Your task to perform on an android device: Open calendar and show me the second week of next month Image 0: 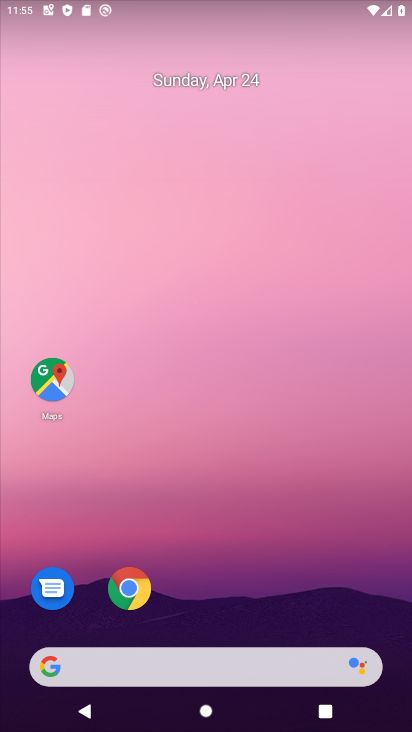
Step 0: drag from (190, 610) to (292, 75)
Your task to perform on an android device: Open calendar and show me the second week of next month Image 1: 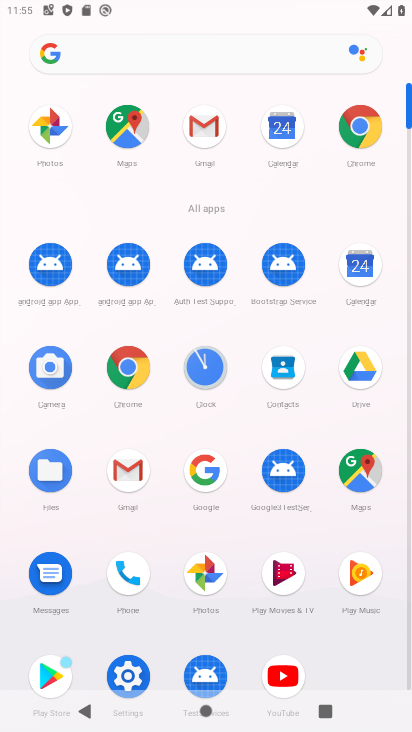
Step 1: click (356, 288)
Your task to perform on an android device: Open calendar and show me the second week of next month Image 2: 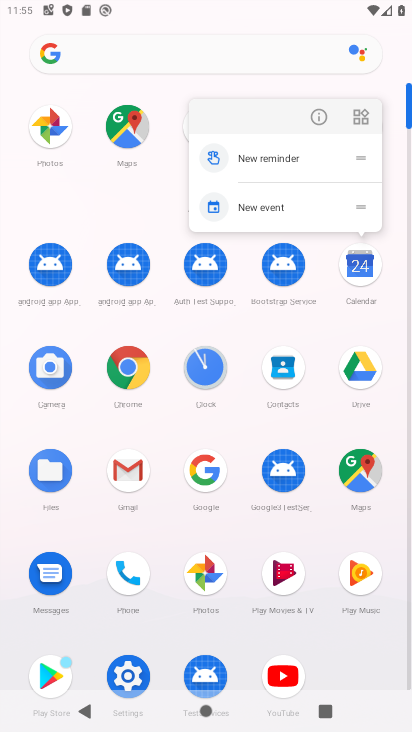
Step 2: click (363, 276)
Your task to perform on an android device: Open calendar and show me the second week of next month Image 3: 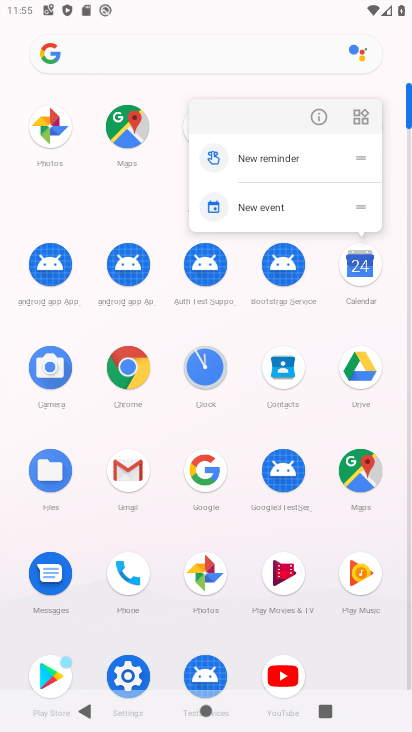
Step 3: click (357, 268)
Your task to perform on an android device: Open calendar and show me the second week of next month Image 4: 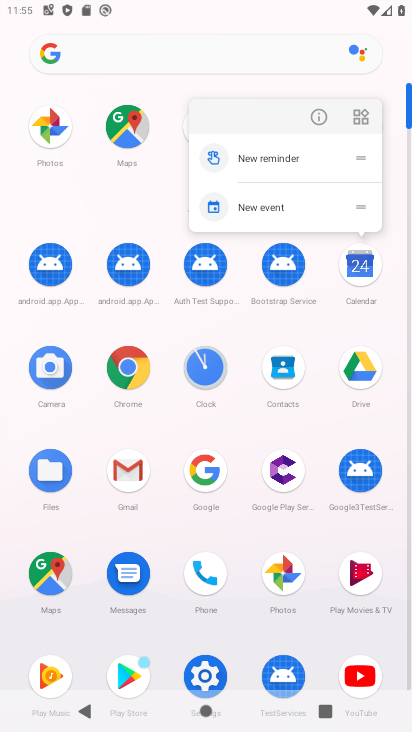
Step 4: click (368, 267)
Your task to perform on an android device: Open calendar and show me the second week of next month Image 5: 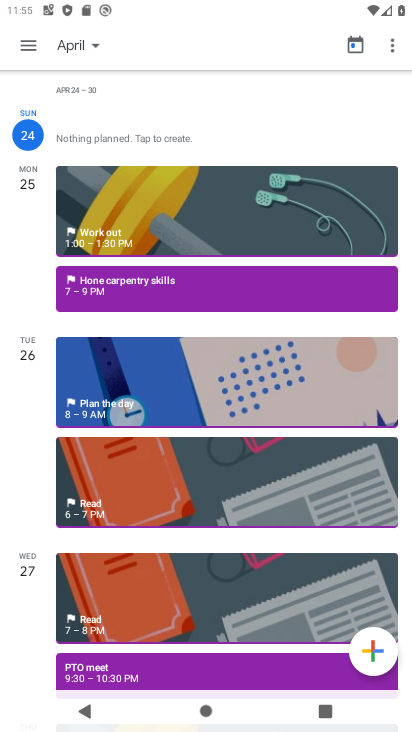
Step 5: click (90, 42)
Your task to perform on an android device: Open calendar and show me the second week of next month Image 6: 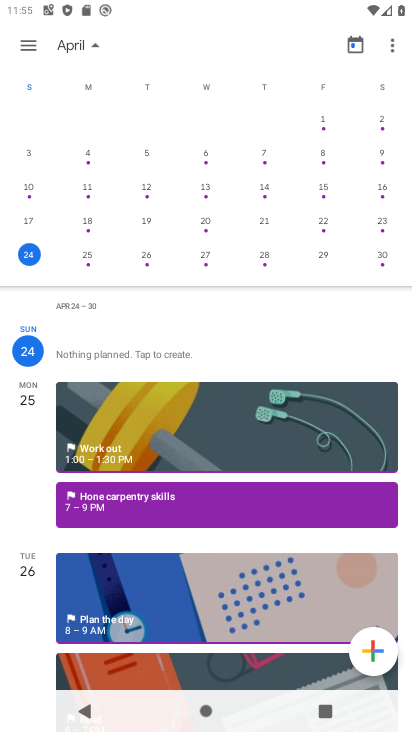
Step 6: drag from (374, 203) to (0, 175)
Your task to perform on an android device: Open calendar and show me the second week of next month Image 7: 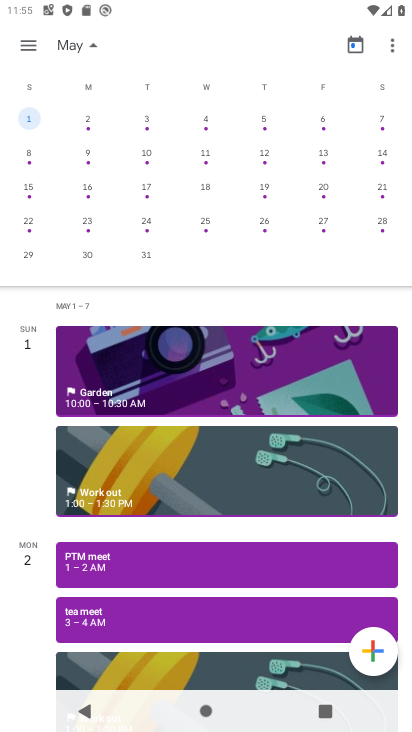
Step 7: click (33, 152)
Your task to perform on an android device: Open calendar and show me the second week of next month Image 8: 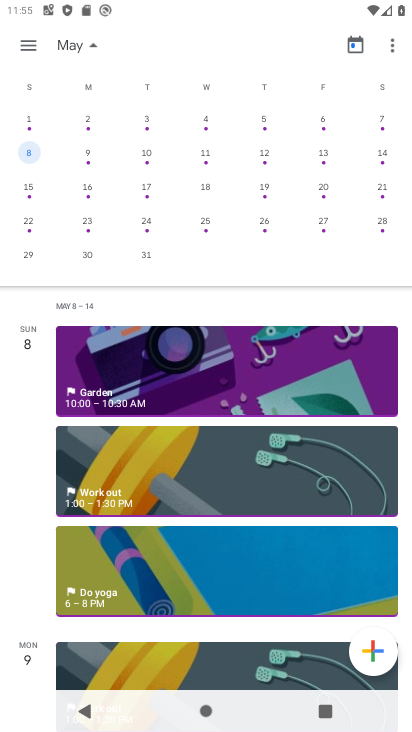
Step 8: click (36, 43)
Your task to perform on an android device: Open calendar and show me the second week of next month Image 9: 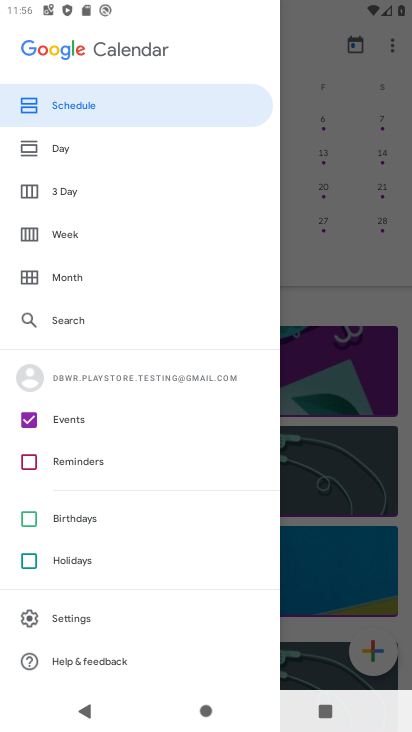
Step 9: click (100, 229)
Your task to perform on an android device: Open calendar and show me the second week of next month Image 10: 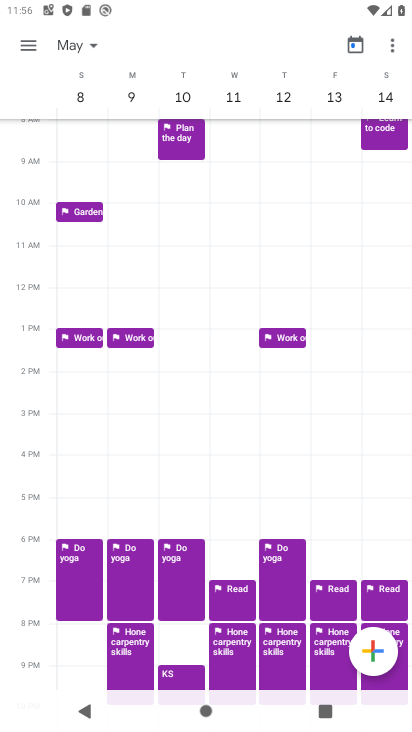
Step 10: task complete